Your task to perform on an android device: change timer sound Image 0: 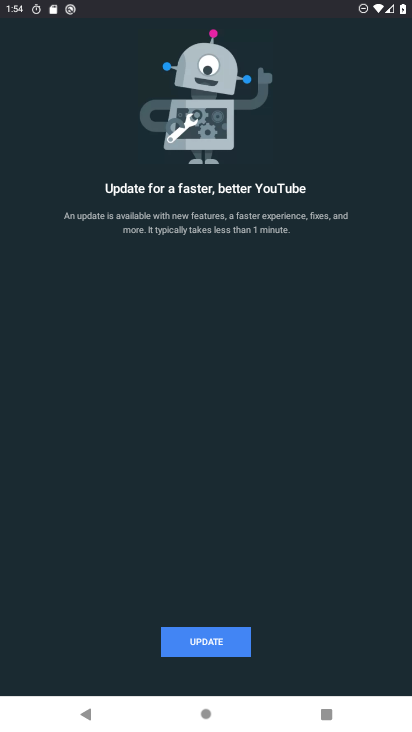
Step 0: press home button
Your task to perform on an android device: change timer sound Image 1: 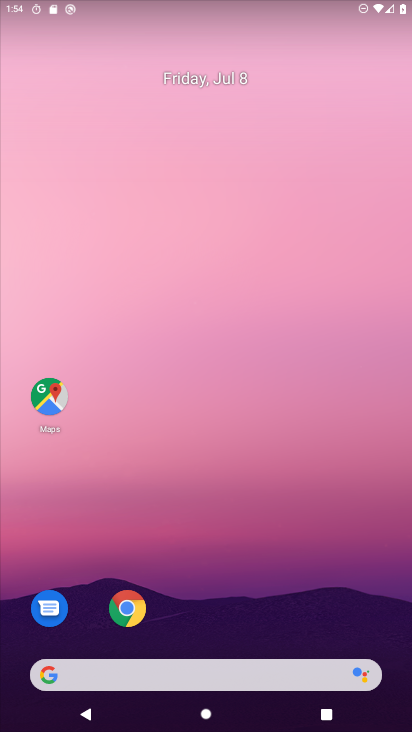
Step 1: drag from (261, 667) to (261, 260)
Your task to perform on an android device: change timer sound Image 2: 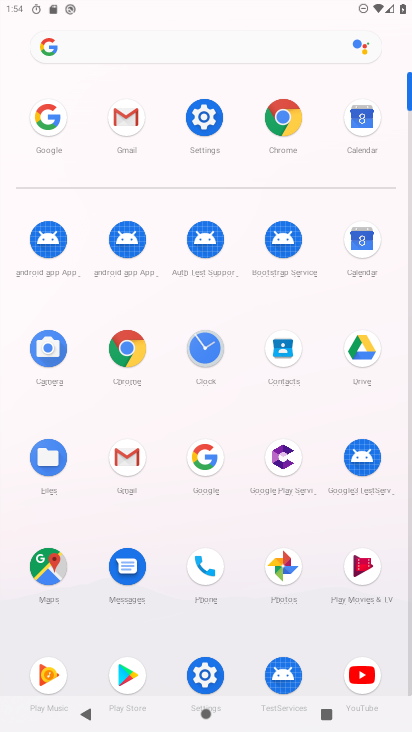
Step 2: click (205, 356)
Your task to perform on an android device: change timer sound Image 3: 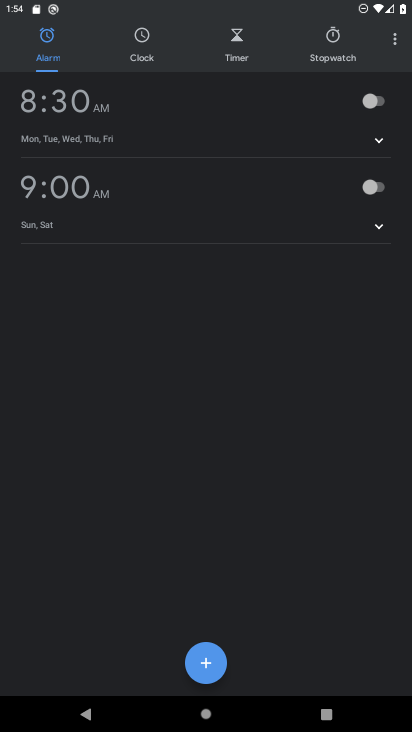
Step 3: click (394, 37)
Your task to perform on an android device: change timer sound Image 4: 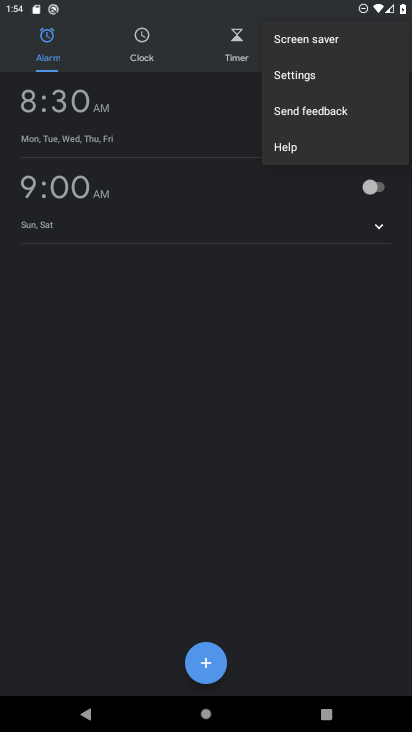
Step 4: click (299, 73)
Your task to perform on an android device: change timer sound Image 5: 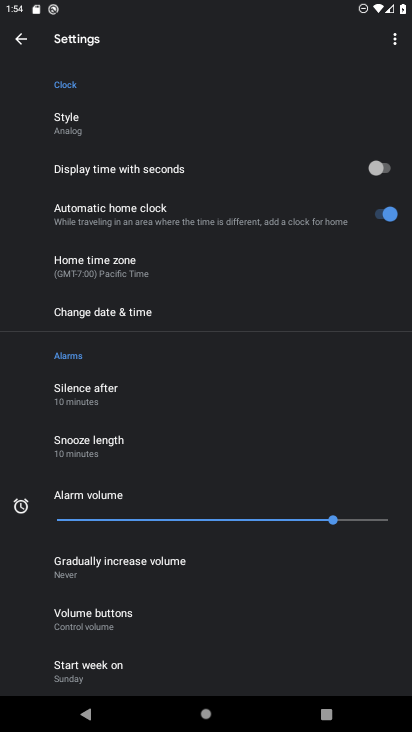
Step 5: drag from (121, 642) to (146, 232)
Your task to perform on an android device: change timer sound Image 6: 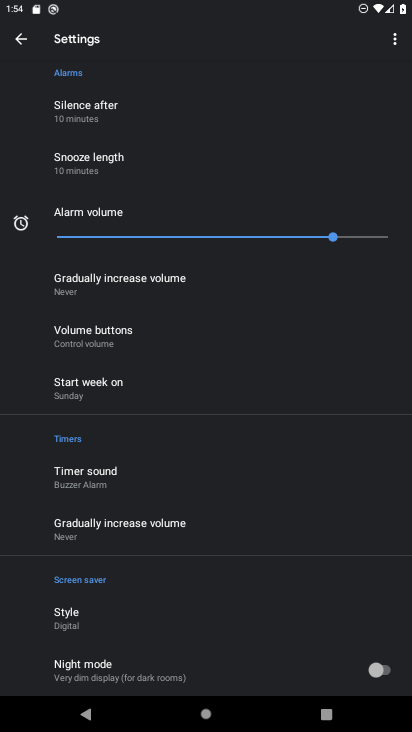
Step 6: click (77, 475)
Your task to perform on an android device: change timer sound Image 7: 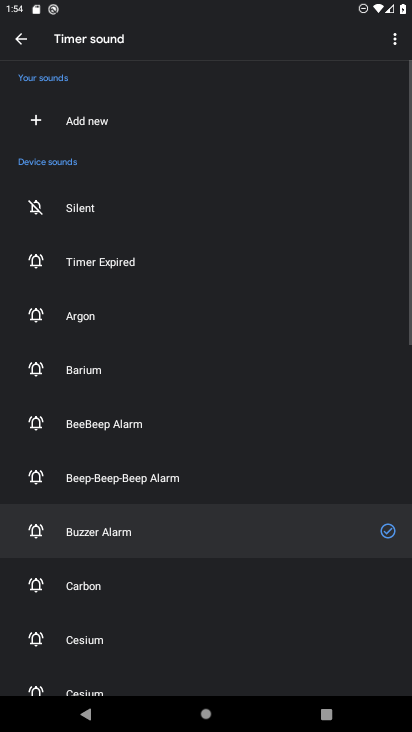
Step 7: click (82, 633)
Your task to perform on an android device: change timer sound Image 8: 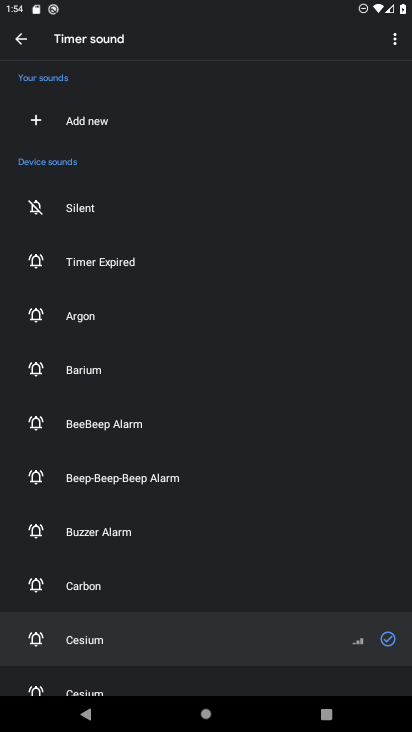
Step 8: task complete